Your task to perform on an android device: Go to settings Image 0: 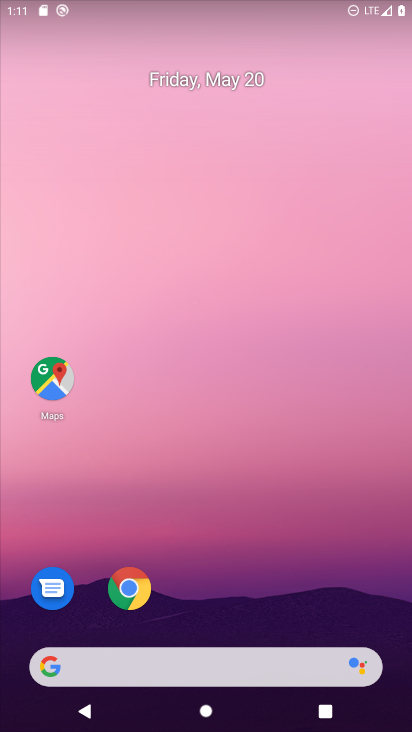
Step 0: drag from (356, 618) to (281, 56)
Your task to perform on an android device: Go to settings Image 1: 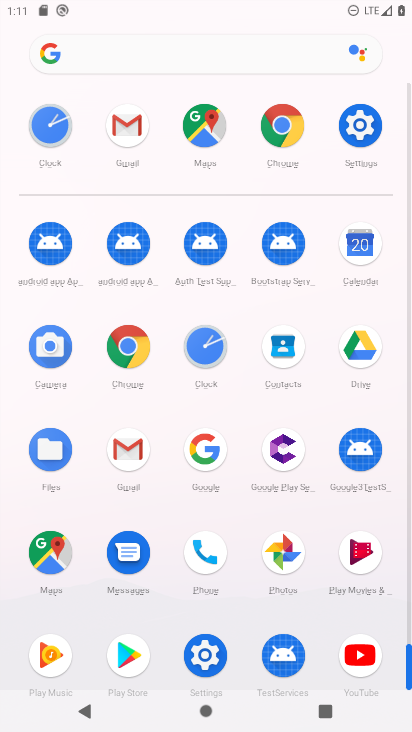
Step 1: click (203, 654)
Your task to perform on an android device: Go to settings Image 2: 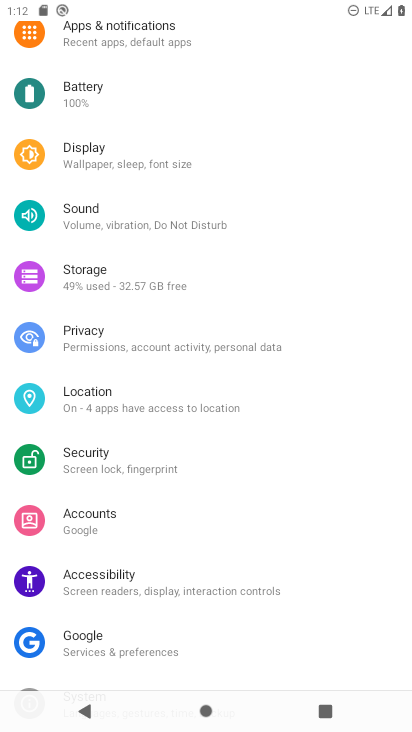
Step 2: task complete